Your task to perform on an android device: Go to Android settings Image 0: 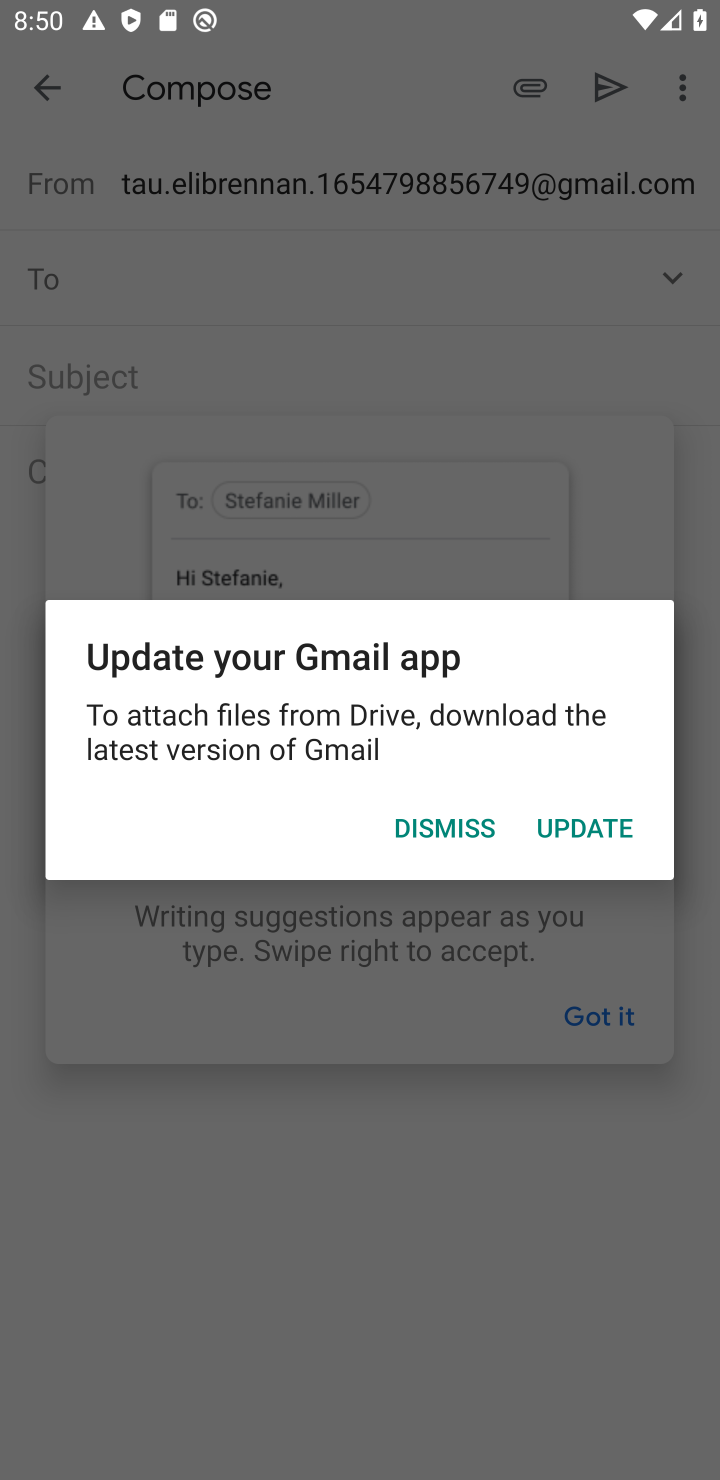
Step 0: press home button
Your task to perform on an android device: Go to Android settings Image 1: 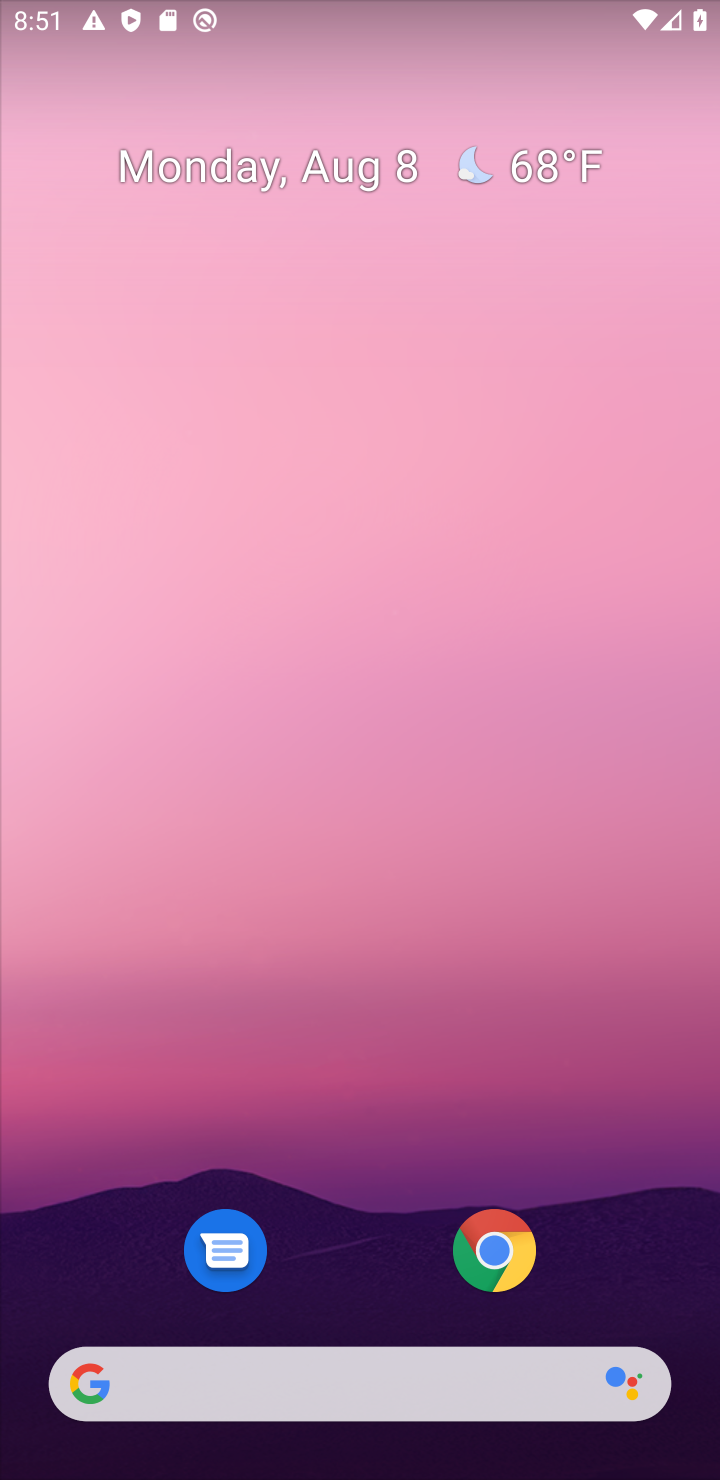
Step 1: drag from (638, 1176) to (611, 640)
Your task to perform on an android device: Go to Android settings Image 2: 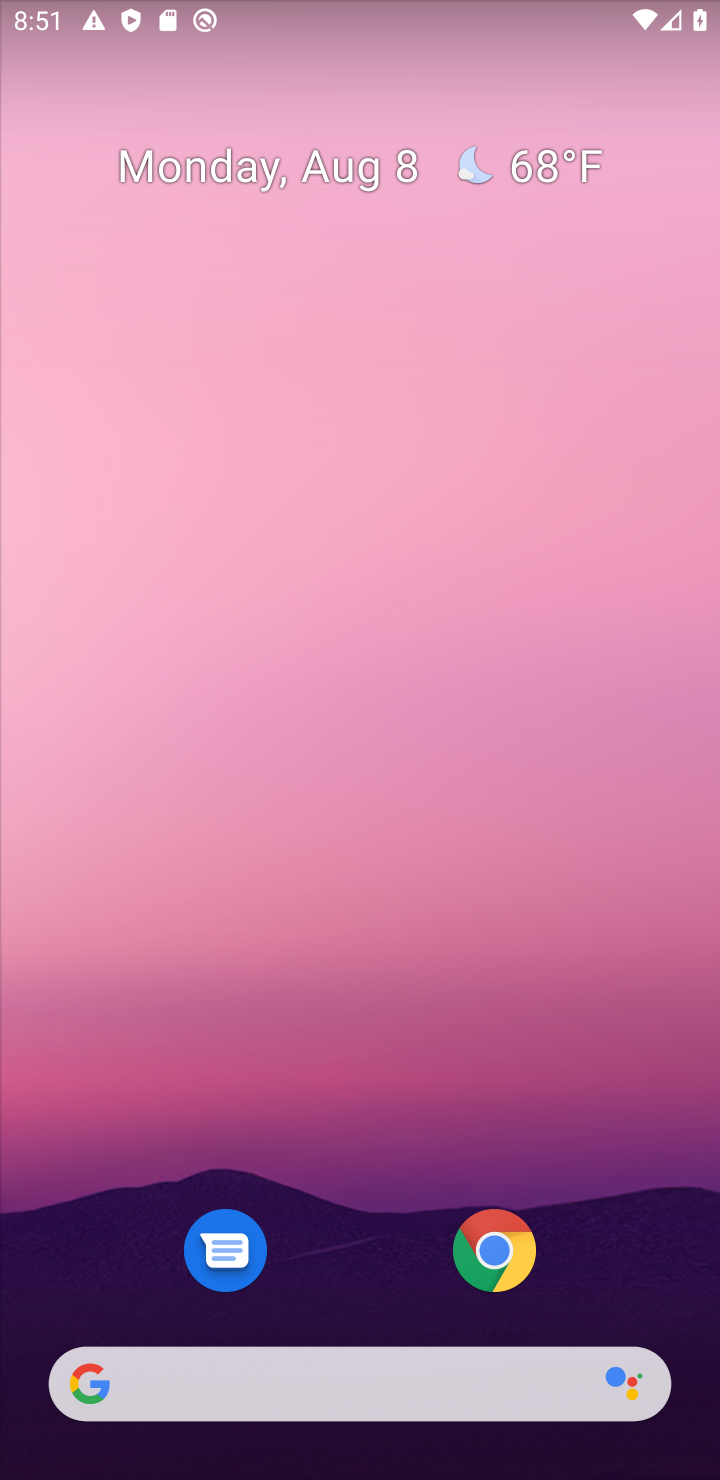
Step 2: drag from (653, 1279) to (640, 310)
Your task to perform on an android device: Go to Android settings Image 3: 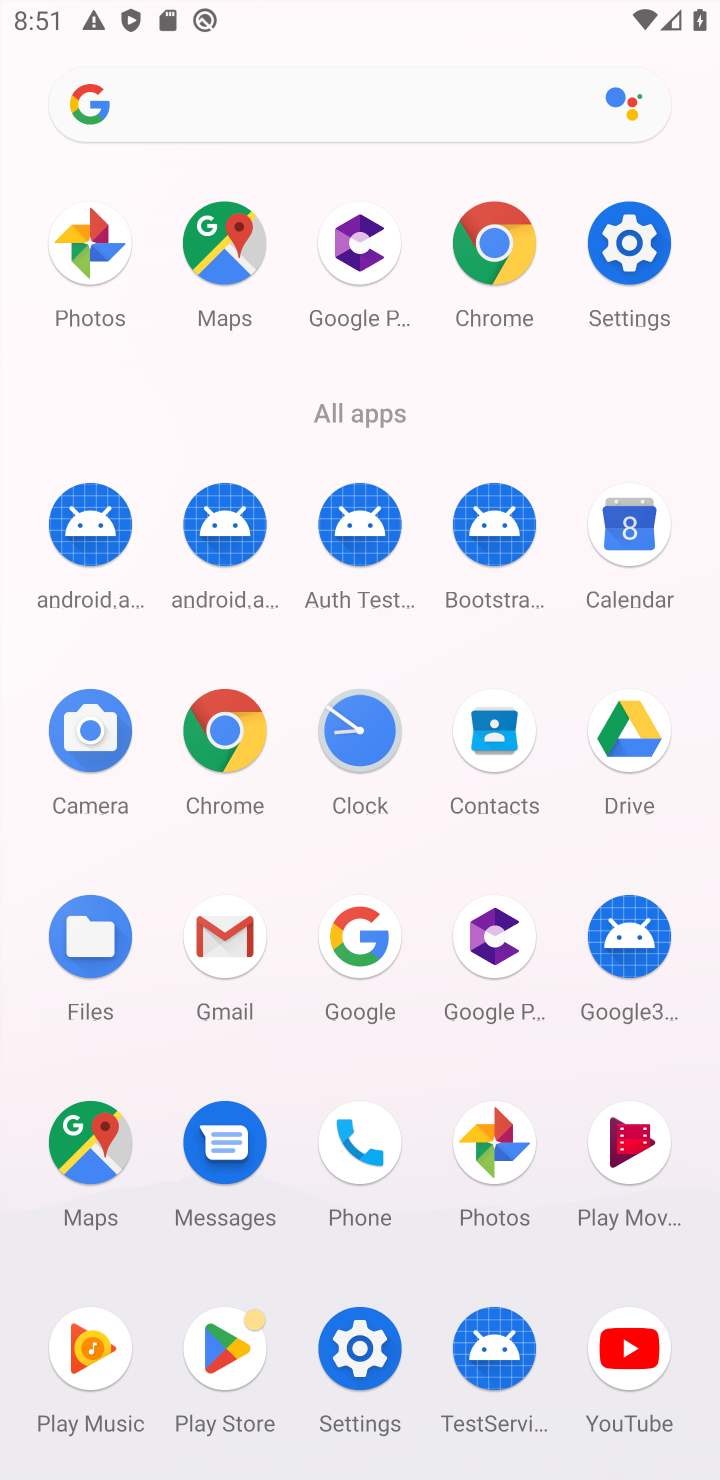
Step 3: click (365, 1343)
Your task to perform on an android device: Go to Android settings Image 4: 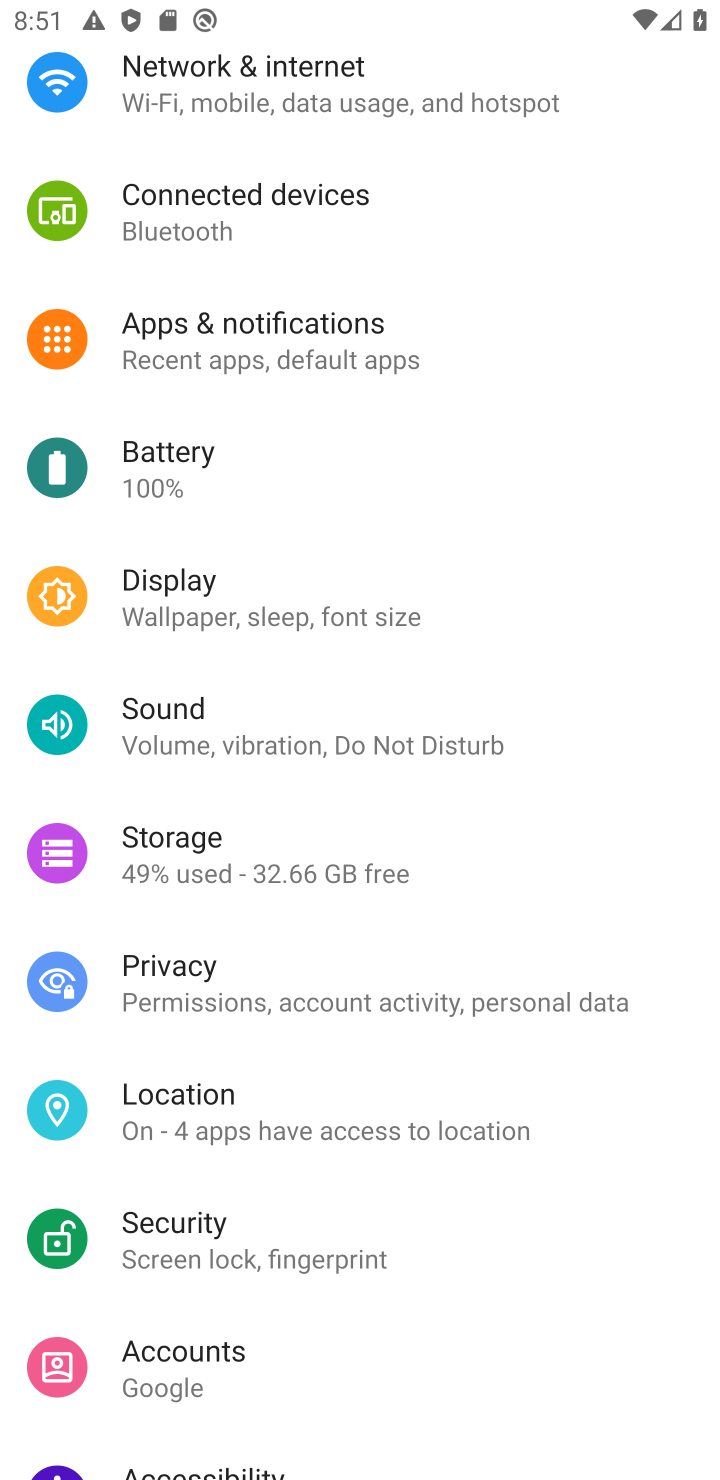
Step 4: task complete